Your task to perform on an android device: Go to privacy settings Image 0: 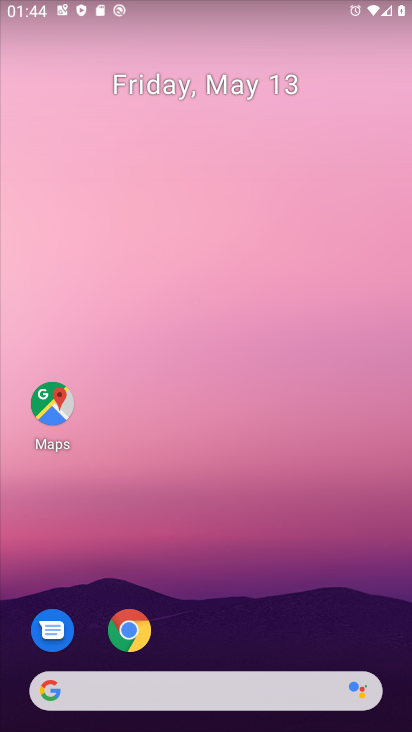
Step 0: drag from (225, 710) to (264, 264)
Your task to perform on an android device: Go to privacy settings Image 1: 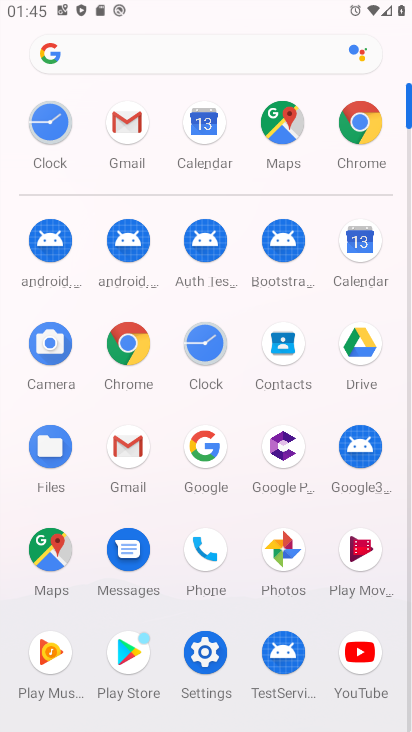
Step 1: click (202, 636)
Your task to perform on an android device: Go to privacy settings Image 2: 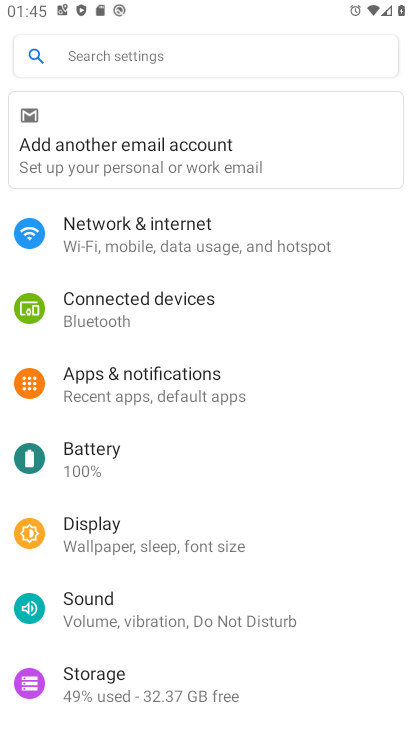
Step 2: drag from (138, 643) to (158, 458)
Your task to perform on an android device: Go to privacy settings Image 3: 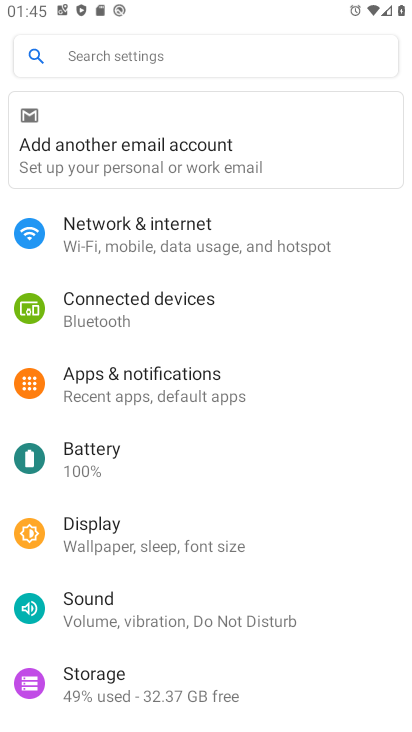
Step 3: drag from (107, 613) to (164, 474)
Your task to perform on an android device: Go to privacy settings Image 4: 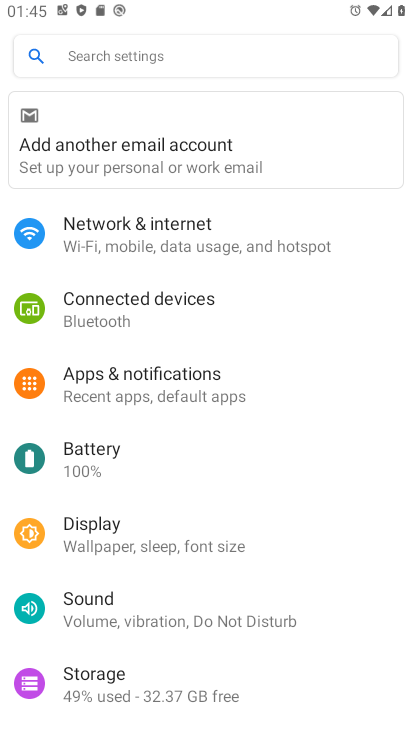
Step 4: drag from (127, 572) to (152, 400)
Your task to perform on an android device: Go to privacy settings Image 5: 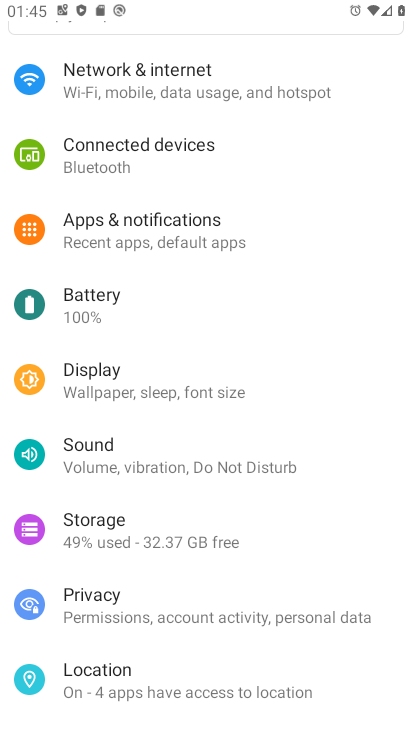
Step 5: click (123, 599)
Your task to perform on an android device: Go to privacy settings Image 6: 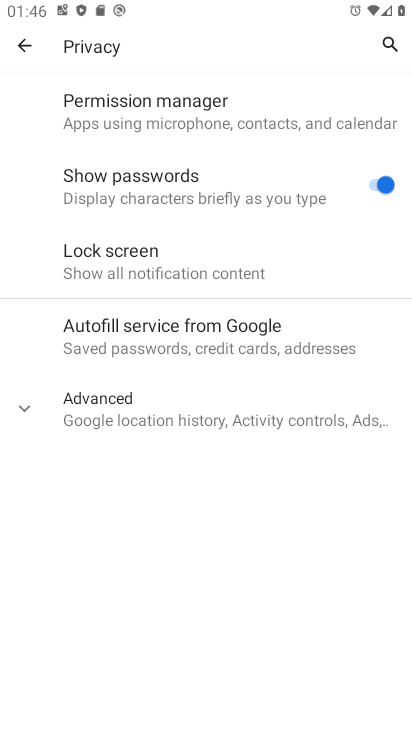
Step 6: task complete